Your task to perform on an android device: set an alarm Image 0: 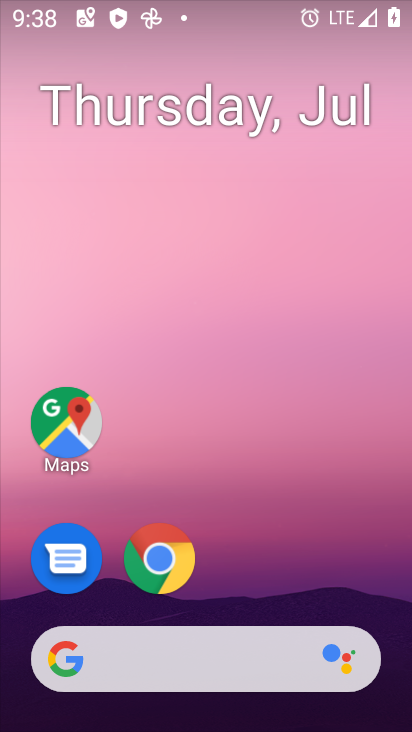
Step 0: drag from (385, 607) to (374, 290)
Your task to perform on an android device: set an alarm Image 1: 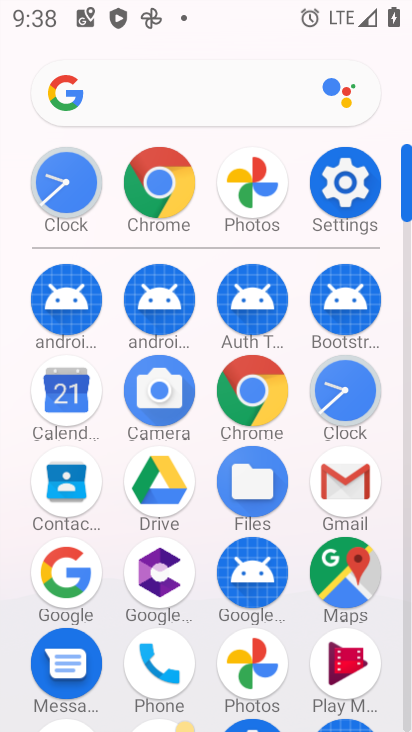
Step 1: click (360, 380)
Your task to perform on an android device: set an alarm Image 2: 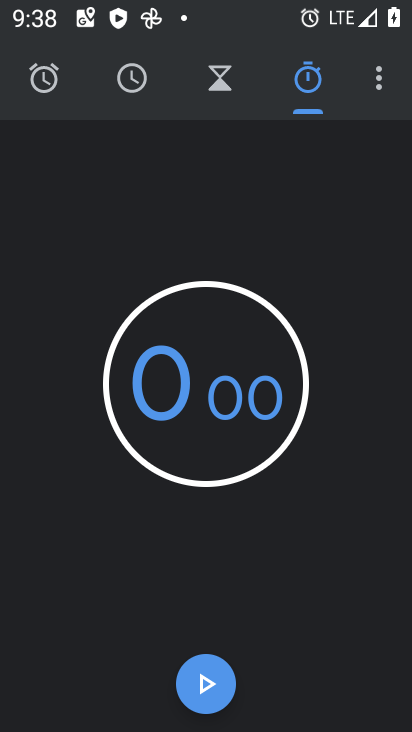
Step 2: click (50, 90)
Your task to perform on an android device: set an alarm Image 3: 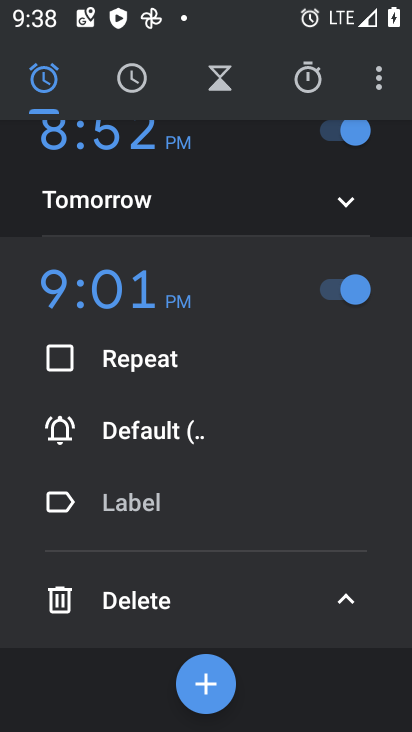
Step 3: click (214, 687)
Your task to perform on an android device: set an alarm Image 4: 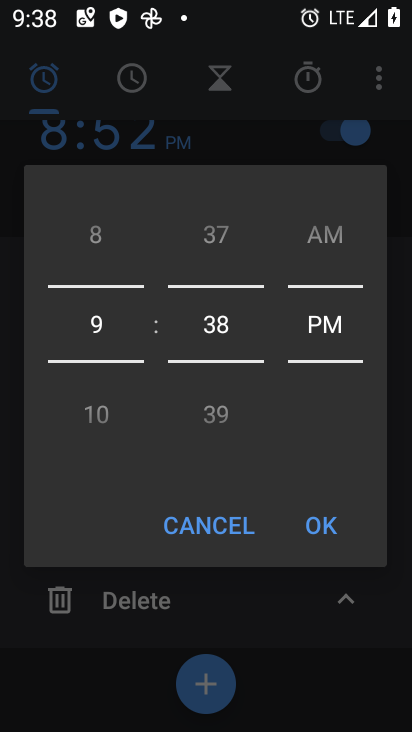
Step 4: click (328, 535)
Your task to perform on an android device: set an alarm Image 5: 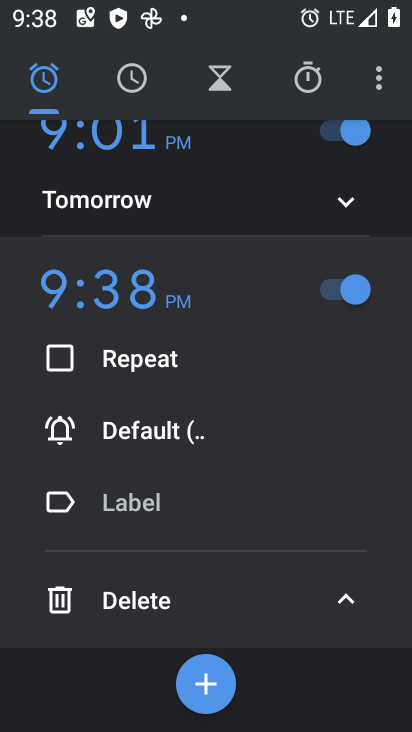
Step 5: task complete